Your task to perform on an android device: turn off location Image 0: 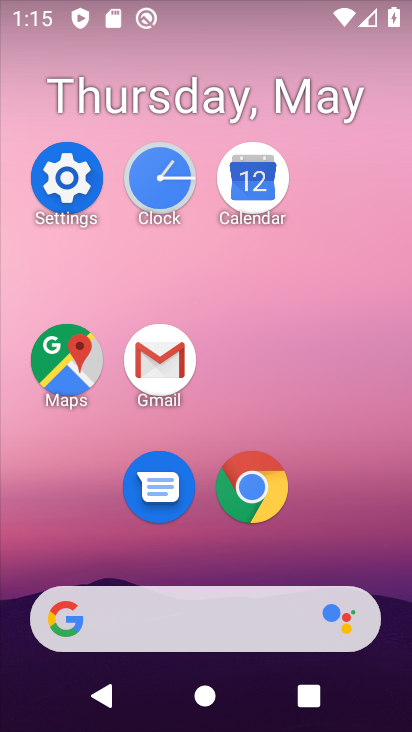
Step 0: click (68, 185)
Your task to perform on an android device: turn off location Image 1: 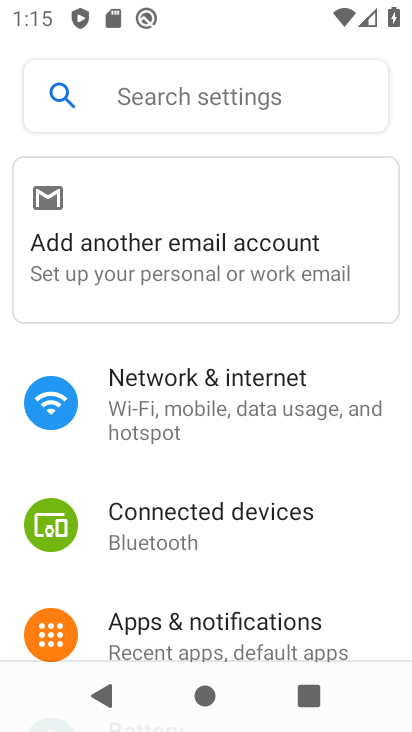
Step 1: drag from (255, 583) to (278, 148)
Your task to perform on an android device: turn off location Image 2: 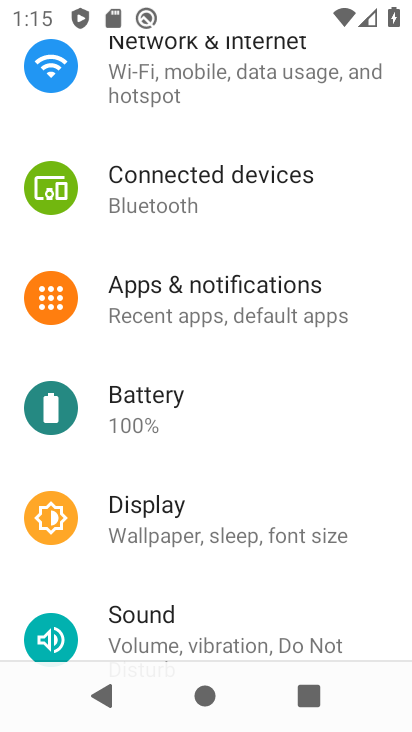
Step 2: drag from (295, 588) to (300, 242)
Your task to perform on an android device: turn off location Image 3: 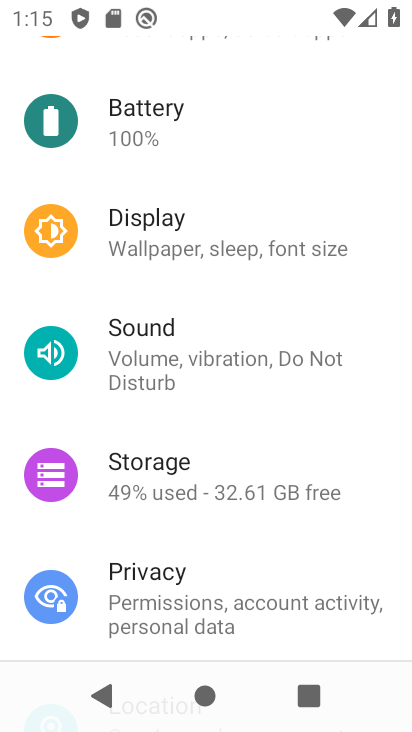
Step 3: drag from (271, 550) to (306, 208)
Your task to perform on an android device: turn off location Image 4: 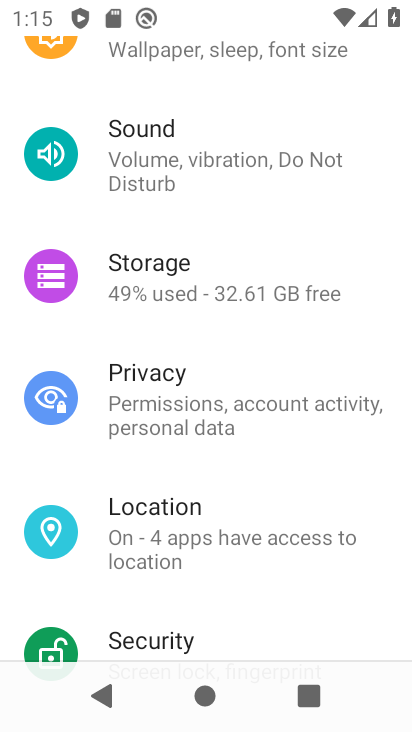
Step 4: click (260, 542)
Your task to perform on an android device: turn off location Image 5: 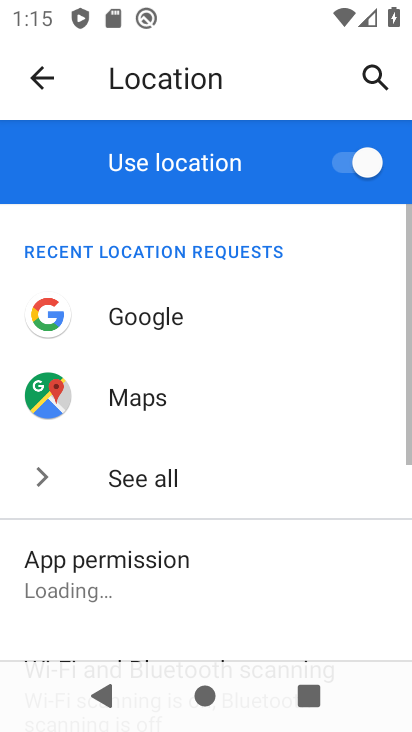
Step 5: click (352, 160)
Your task to perform on an android device: turn off location Image 6: 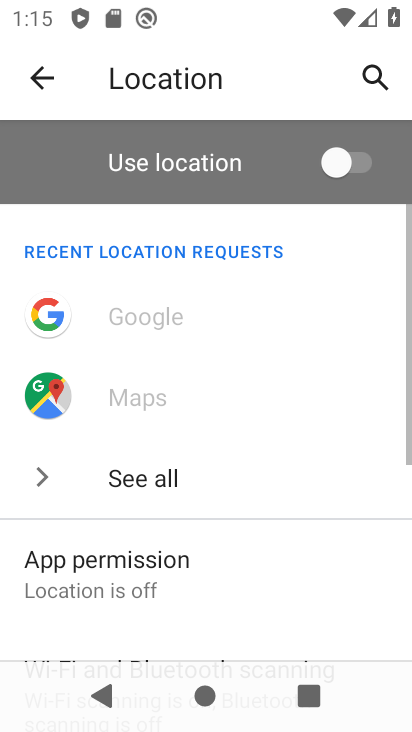
Step 6: task complete